Your task to perform on an android device: add a contact Image 0: 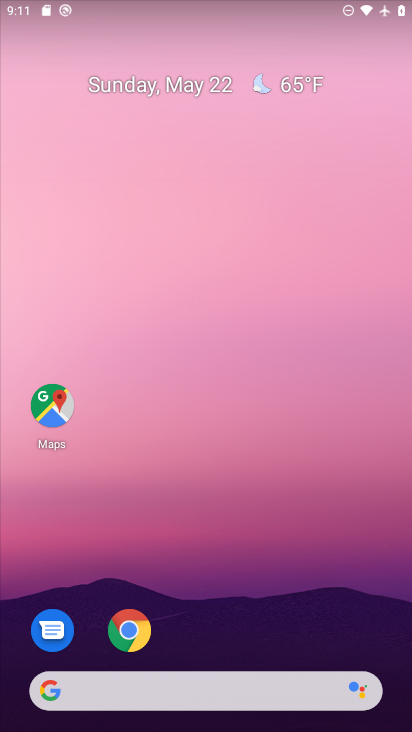
Step 0: press home button
Your task to perform on an android device: add a contact Image 1: 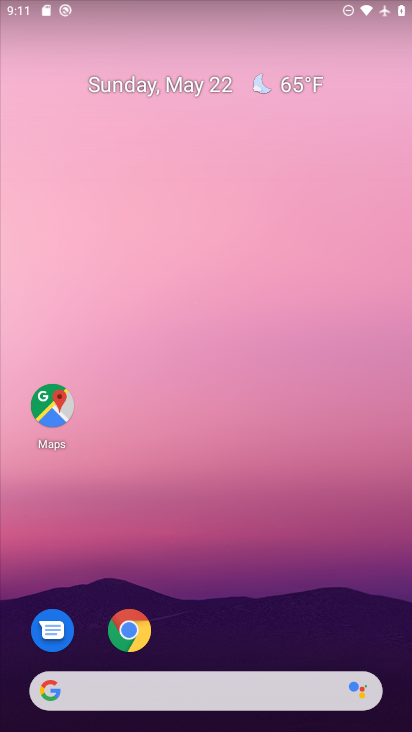
Step 1: drag from (128, 689) to (310, 116)
Your task to perform on an android device: add a contact Image 2: 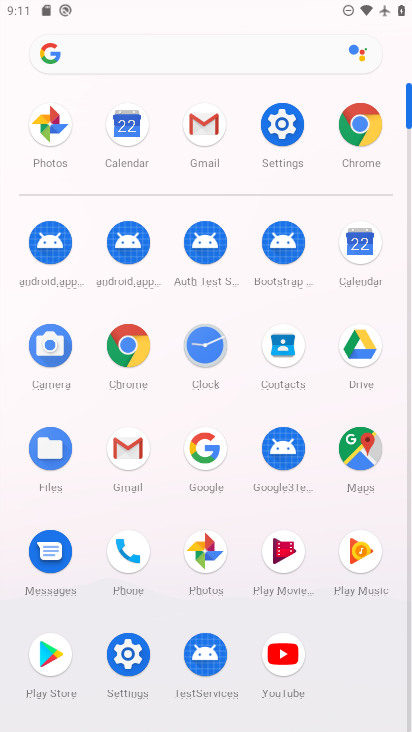
Step 2: click (281, 346)
Your task to perform on an android device: add a contact Image 3: 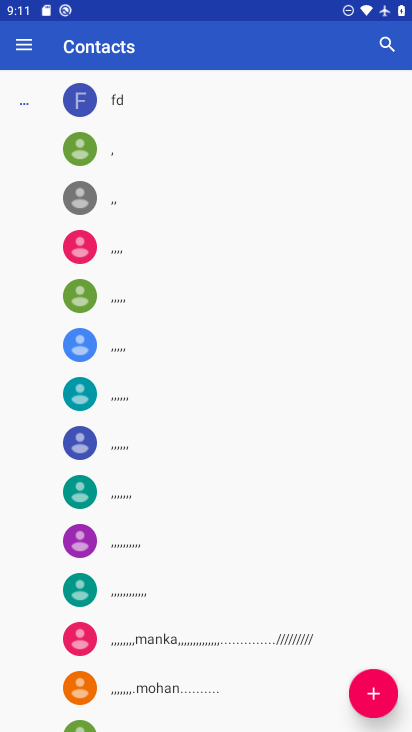
Step 3: click (379, 701)
Your task to perform on an android device: add a contact Image 4: 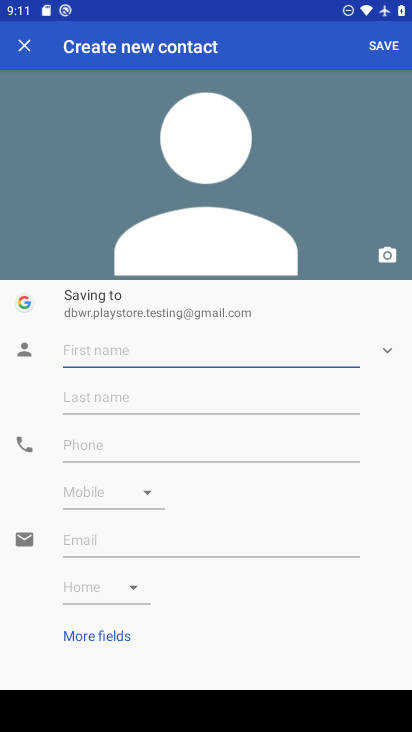
Step 4: click (120, 342)
Your task to perform on an android device: add a contact Image 5: 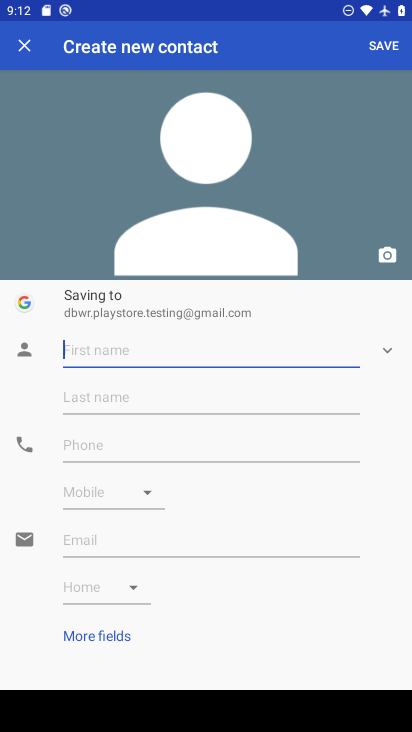
Step 5: type "nyyttfdsaa"
Your task to perform on an android device: add a contact Image 6: 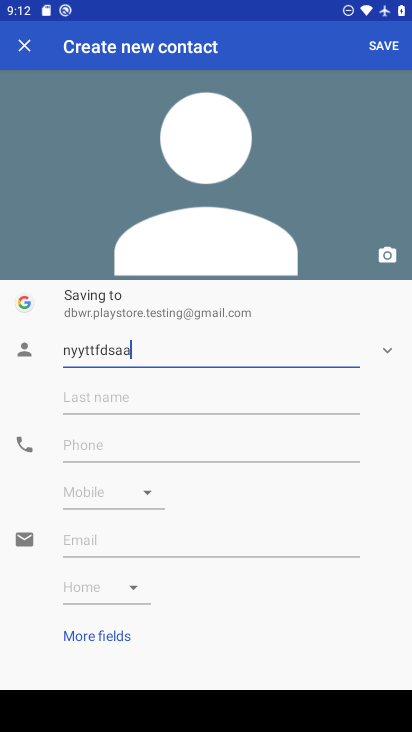
Step 6: click (97, 448)
Your task to perform on an android device: add a contact Image 7: 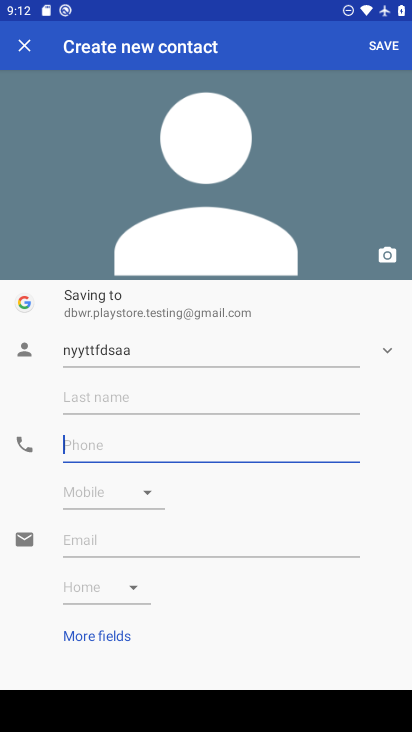
Step 7: type "9554678655"
Your task to perform on an android device: add a contact Image 8: 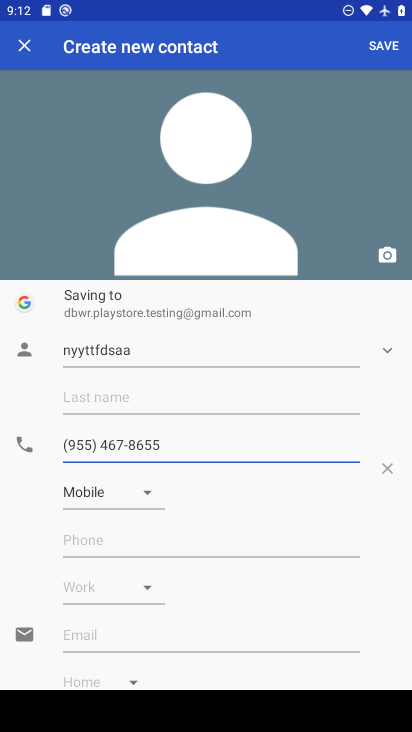
Step 8: click (387, 49)
Your task to perform on an android device: add a contact Image 9: 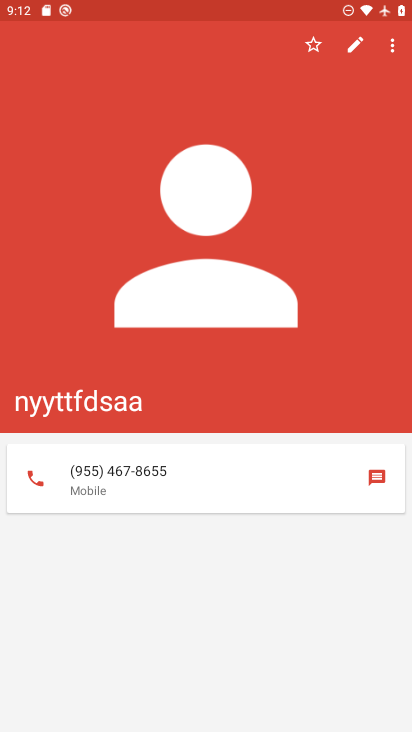
Step 9: task complete